Your task to perform on an android device: Go to privacy settings Image 0: 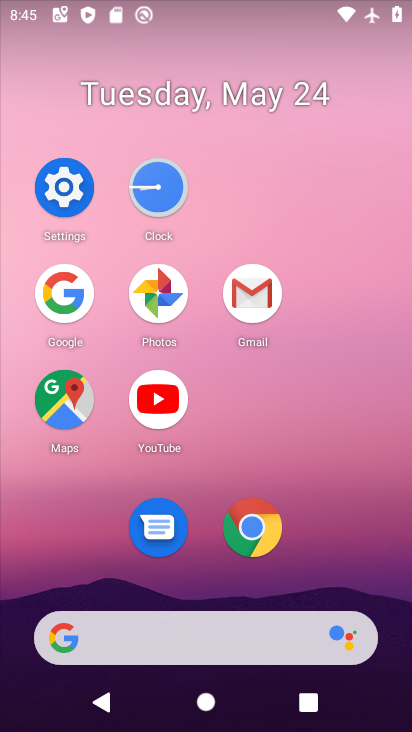
Step 0: click (77, 195)
Your task to perform on an android device: Go to privacy settings Image 1: 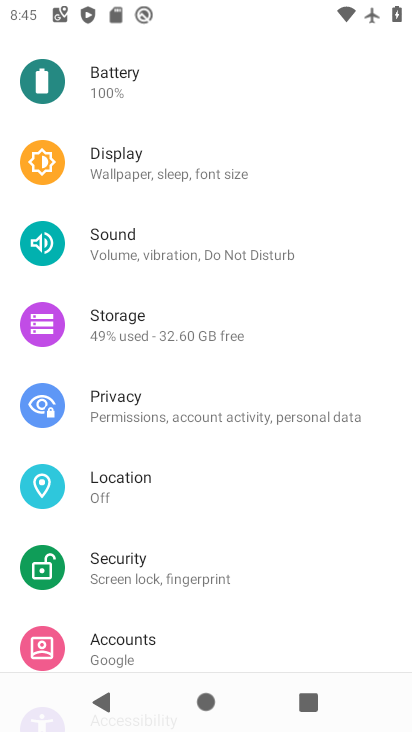
Step 1: drag from (235, 576) to (257, 288)
Your task to perform on an android device: Go to privacy settings Image 2: 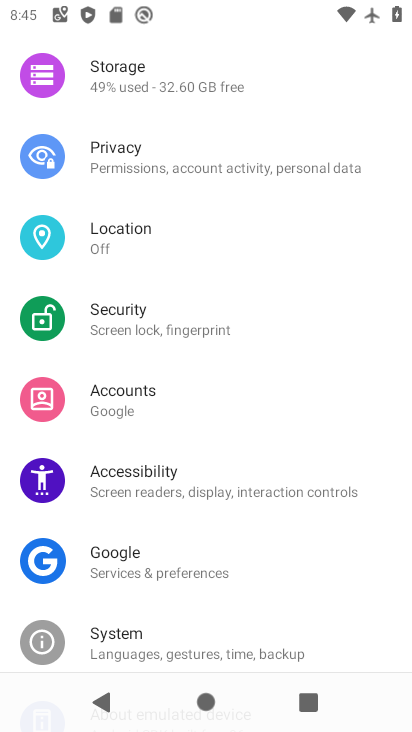
Step 2: drag from (286, 227) to (296, 646)
Your task to perform on an android device: Go to privacy settings Image 3: 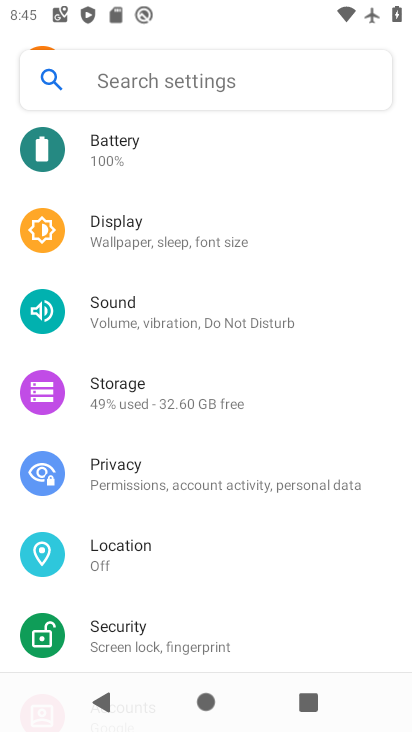
Step 3: drag from (255, 236) to (255, 547)
Your task to perform on an android device: Go to privacy settings Image 4: 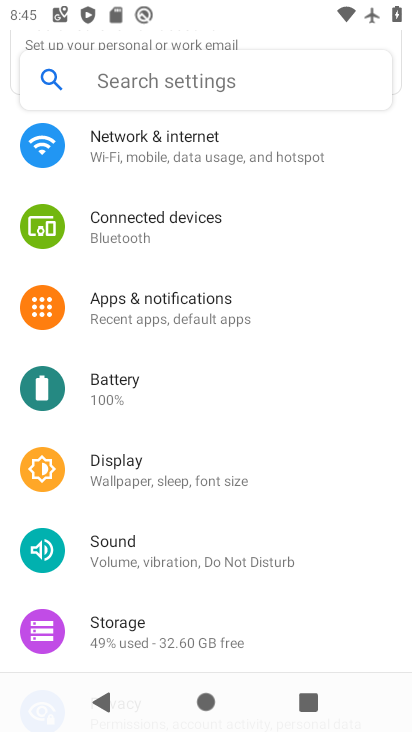
Step 4: drag from (255, 547) to (265, 244)
Your task to perform on an android device: Go to privacy settings Image 5: 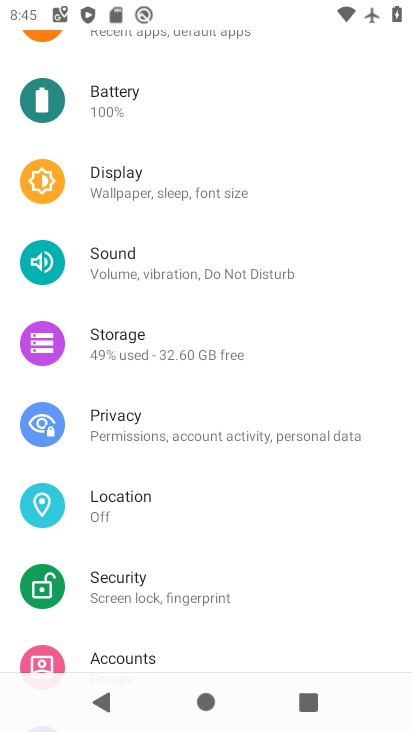
Step 5: drag from (237, 598) to (262, 395)
Your task to perform on an android device: Go to privacy settings Image 6: 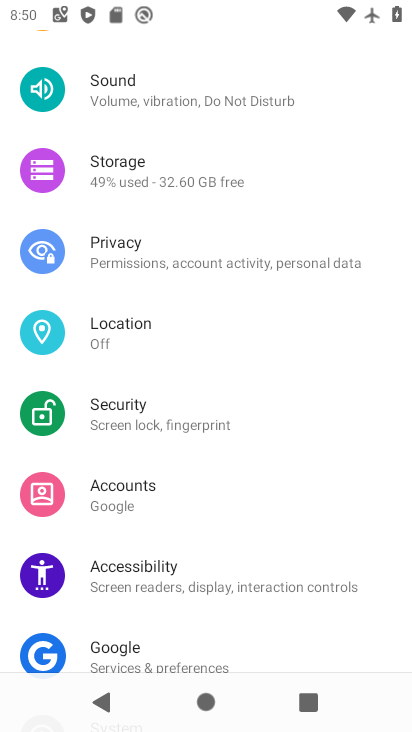
Step 6: click (140, 260)
Your task to perform on an android device: Go to privacy settings Image 7: 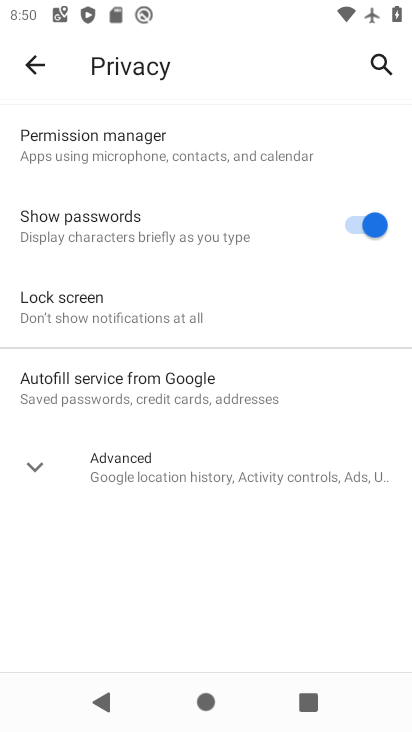
Step 7: task complete